Your task to perform on an android device: Go to accessibility settings Image 0: 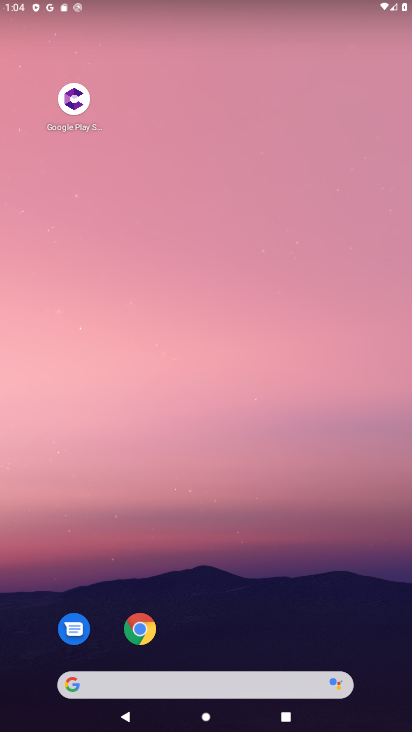
Step 0: drag from (188, 688) to (231, 209)
Your task to perform on an android device: Go to accessibility settings Image 1: 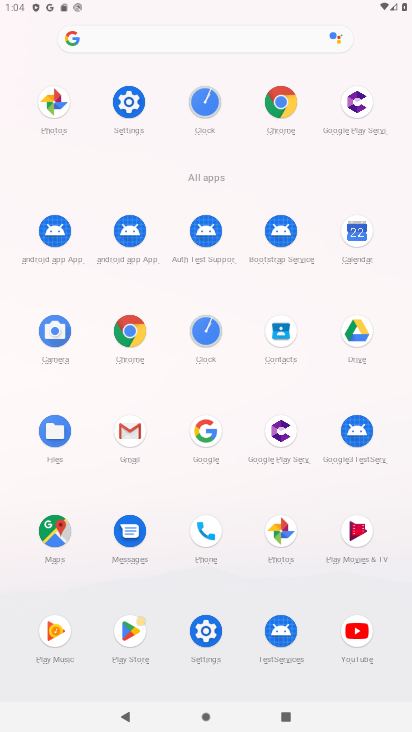
Step 1: click (131, 94)
Your task to perform on an android device: Go to accessibility settings Image 2: 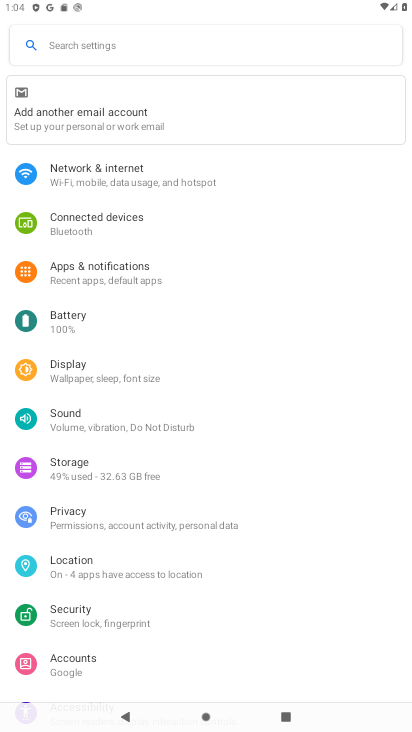
Step 2: click (86, 643)
Your task to perform on an android device: Go to accessibility settings Image 3: 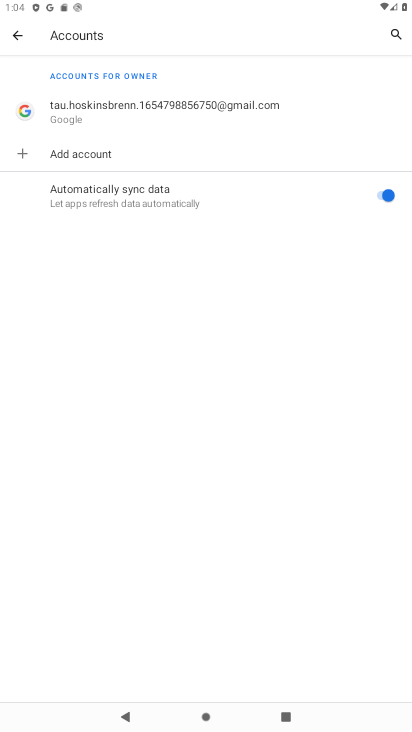
Step 3: click (17, 36)
Your task to perform on an android device: Go to accessibility settings Image 4: 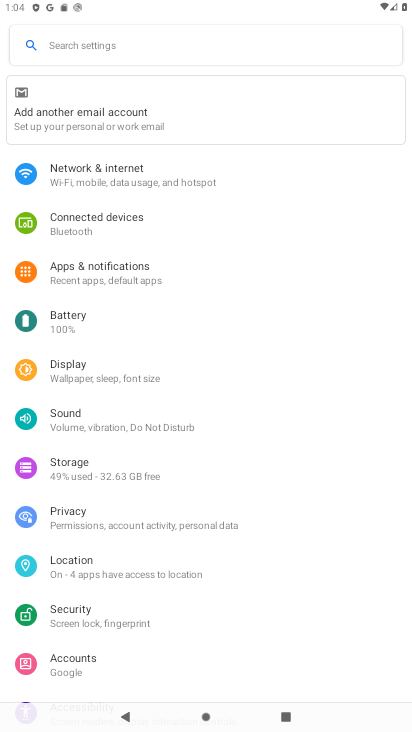
Step 4: drag from (128, 577) to (140, 334)
Your task to perform on an android device: Go to accessibility settings Image 5: 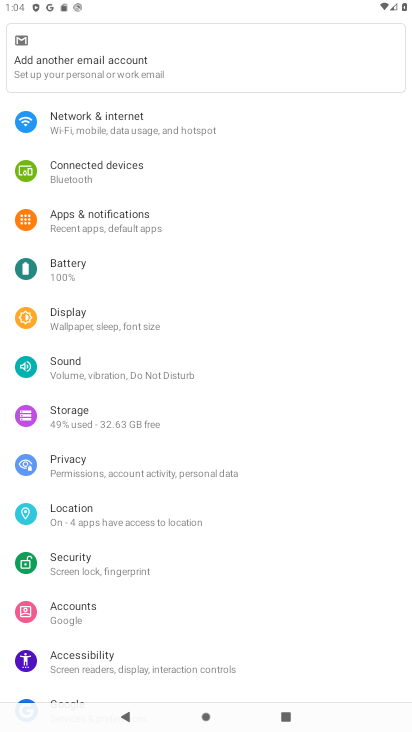
Step 5: click (92, 652)
Your task to perform on an android device: Go to accessibility settings Image 6: 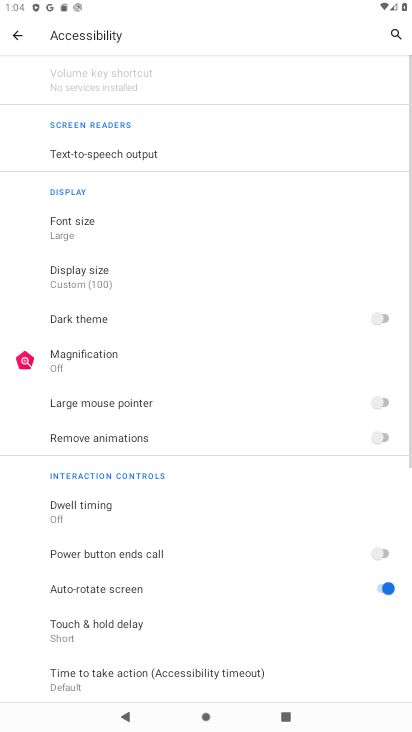
Step 6: task complete